Your task to perform on an android device: toggle airplane mode Image 0: 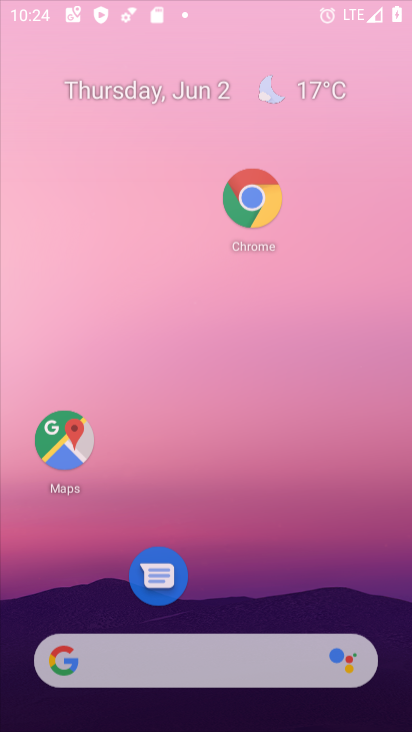
Step 0: press home button
Your task to perform on an android device: toggle airplane mode Image 1: 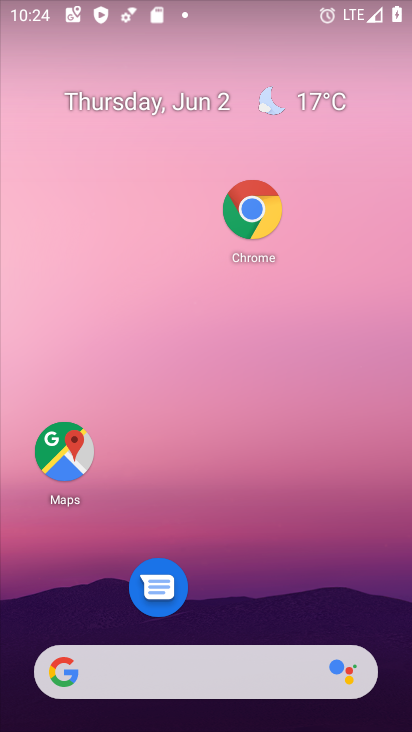
Step 1: drag from (275, 8) to (283, 504)
Your task to perform on an android device: toggle airplane mode Image 2: 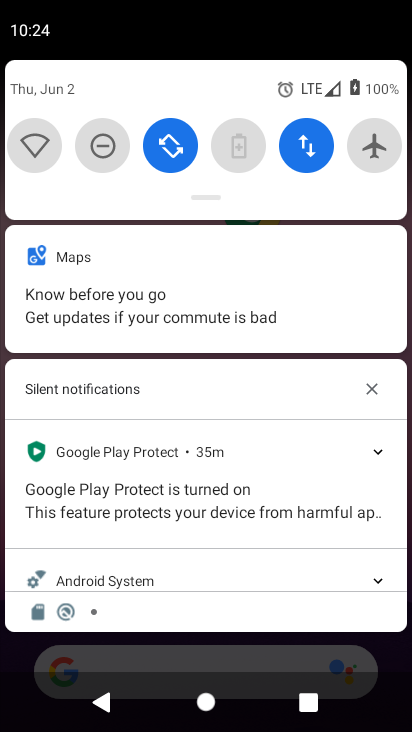
Step 2: click (367, 143)
Your task to perform on an android device: toggle airplane mode Image 3: 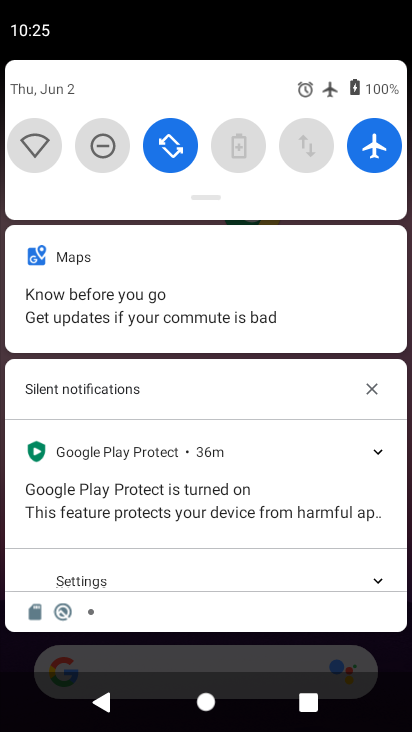
Step 3: task complete